Your task to perform on an android device: Is it going to rain tomorrow? Image 0: 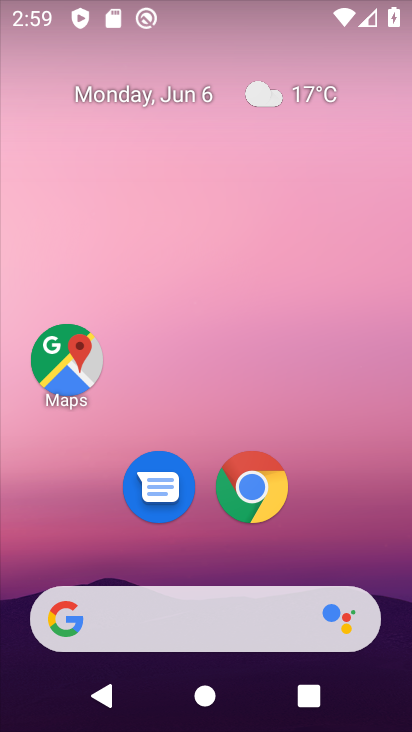
Step 0: click (290, 98)
Your task to perform on an android device: Is it going to rain tomorrow? Image 1: 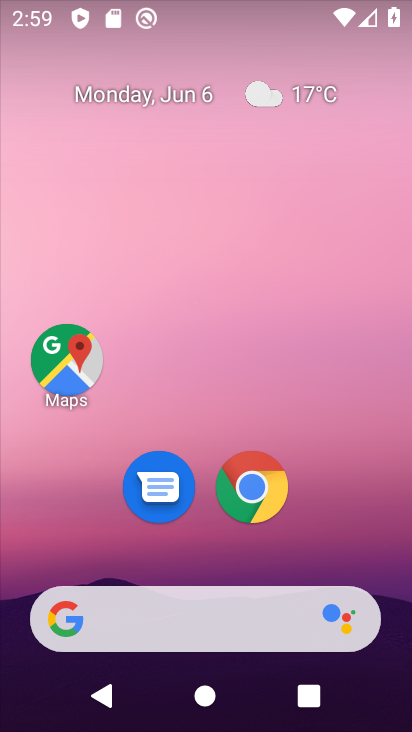
Step 1: click (283, 100)
Your task to perform on an android device: Is it going to rain tomorrow? Image 2: 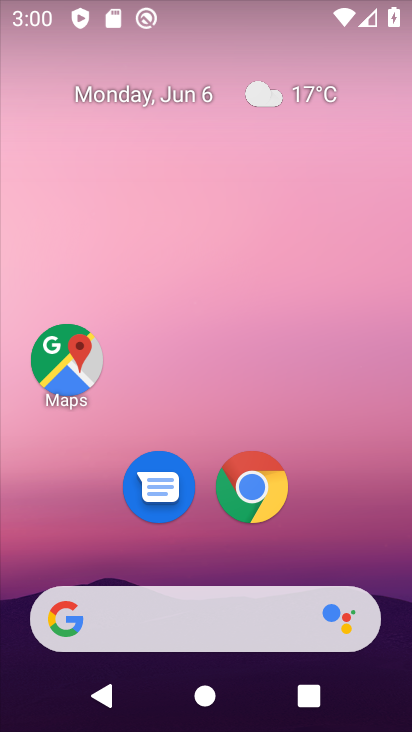
Step 2: click (334, 89)
Your task to perform on an android device: Is it going to rain tomorrow? Image 3: 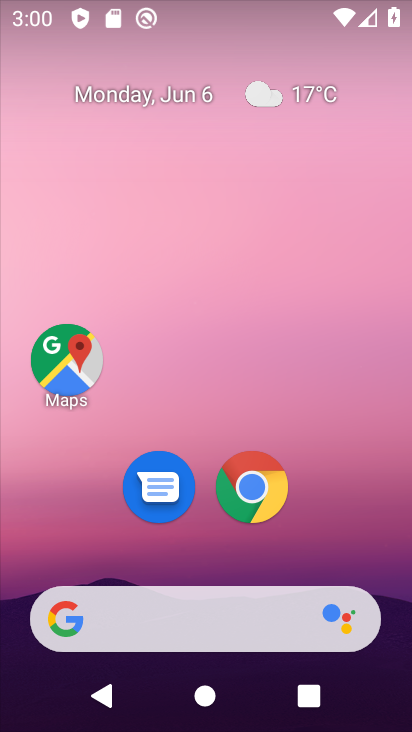
Step 3: click (305, 111)
Your task to perform on an android device: Is it going to rain tomorrow? Image 4: 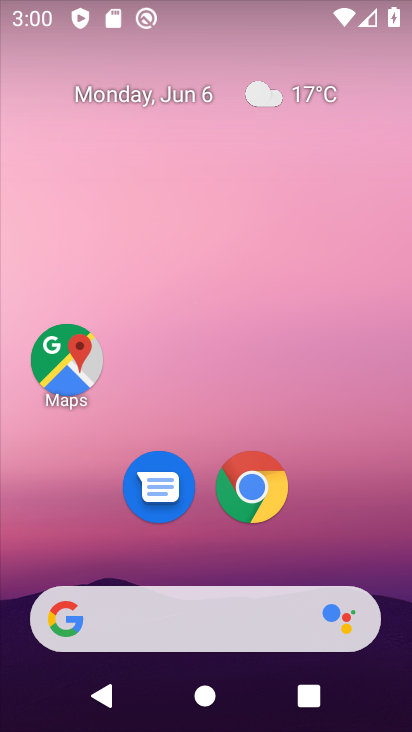
Step 4: click (268, 106)
Your task to perform on an android device: Is it going to rain tomorrow? Image 5: 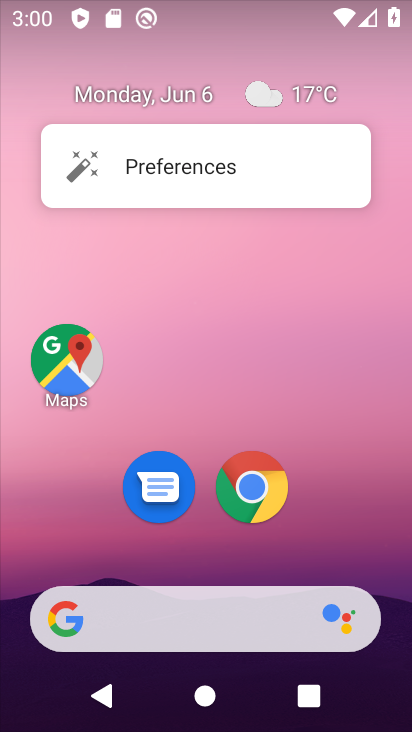
Step 5: click (322, 96)
Your task to perform on an android device: Is it going to rain tomorrow? Image 6: 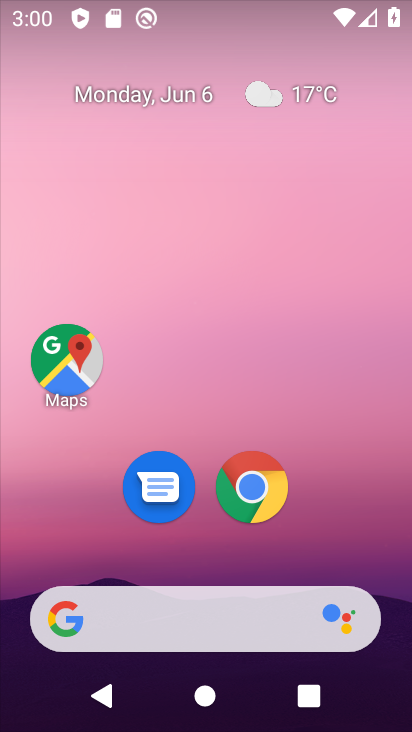
Step 6: click (301, 95)
Your task to perform on an android device: Is it going to rain tomorrow? Image 7: 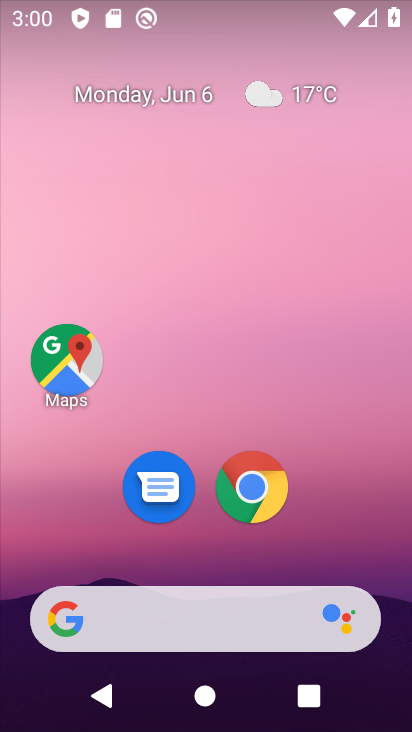
Step 7: click (291, 105)
Your task to perform on an android device: Is it going to rain tomorrow? Image 8: 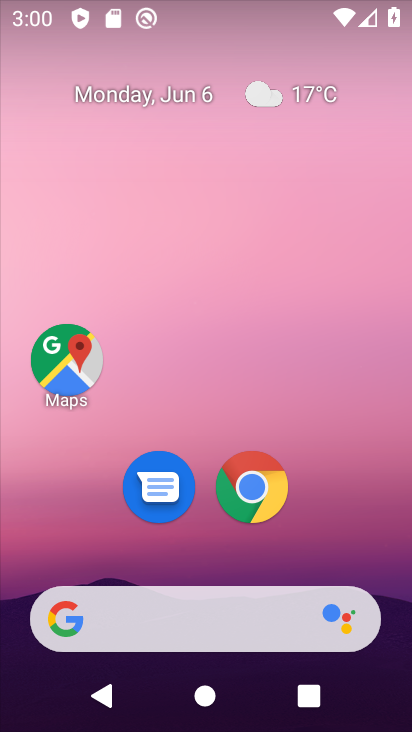
Step 8: click (285, 106)
Your task to perform on an android device: Is it going to rain tomorrow? Image 9: 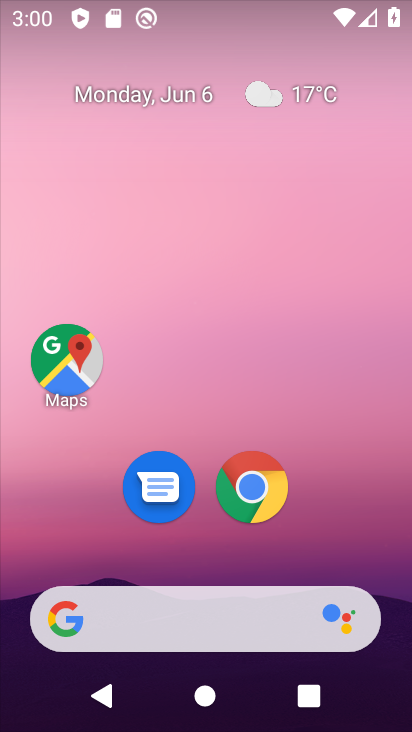
Step 9: click (284, 106)
Your task to perform on an android device: Is it going to rain tomorrow? Image 10: 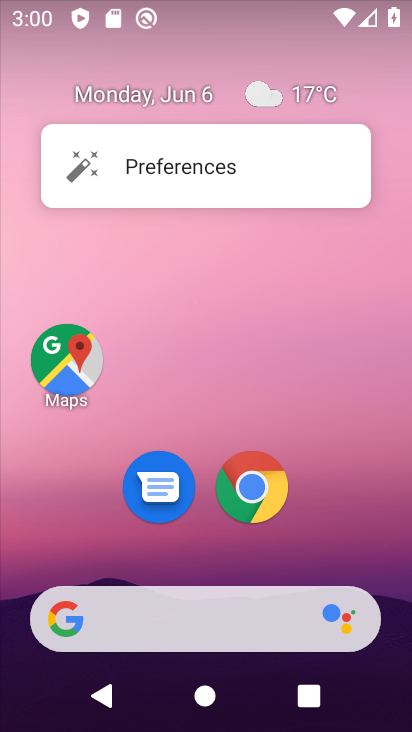
Step 10: click (323, 94)
Your task to perform on an android device: Is it going to rain tomorrow? Image 11: 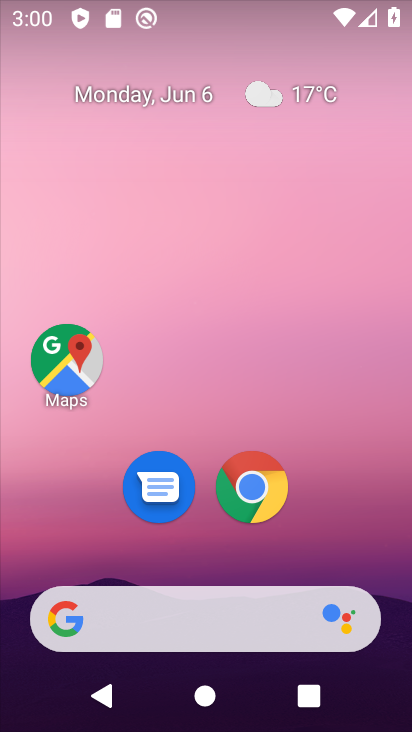
Step 11: click (294, 95)
Your task to perform on an android device: Is it going to rain tomorrow? Image 12: 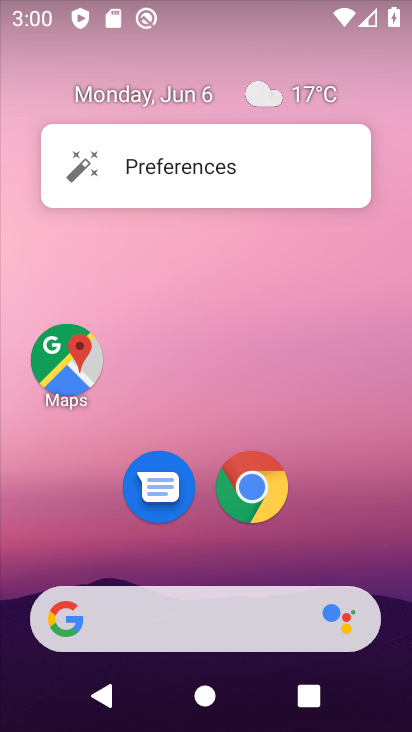
Step 12: click (290, 113)
Your task to perform on an android device: Is it going to rain tomorrow? Image 13: 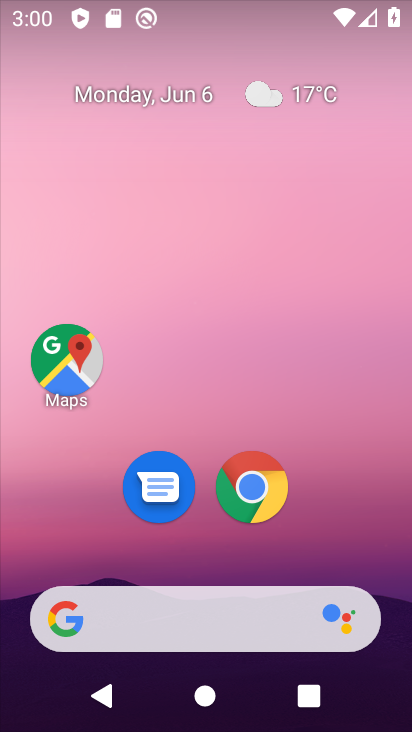
Step 13: click (290, 98)
Your task to perform on an android device: Is it going to rain tomorrow? Image 14: 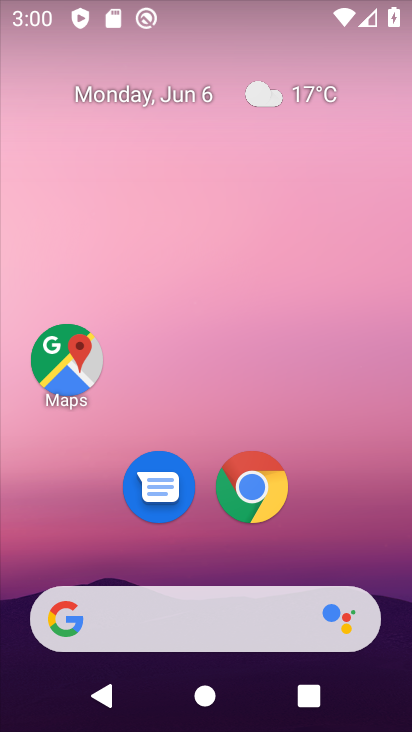
Step 14: click (289, 96)
Your task to perform on an android device: Is it going to rain tomorrow? Image 15: 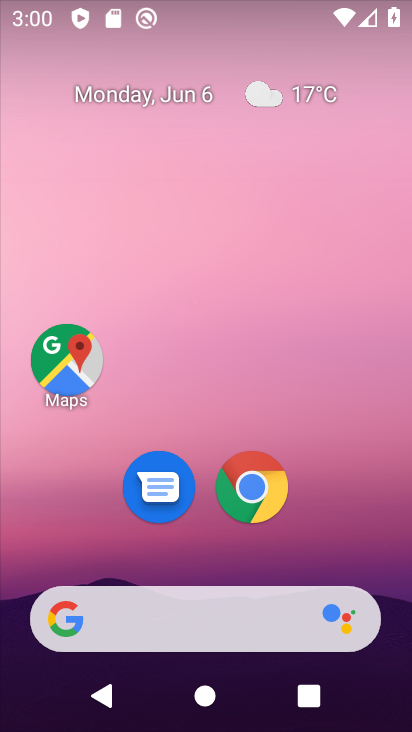
Step 15: click (275, 99)
Your task to perform on an android device: Is it going to rain tomorrow? Image 16: 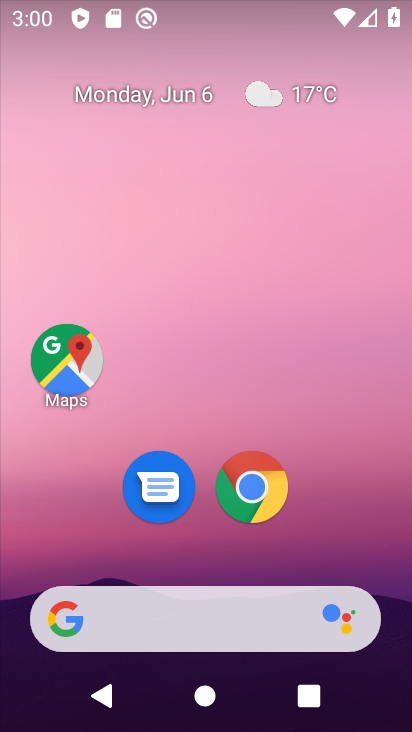
Step 16: click (308, 95)
Your task to perform on an android device: Is it going to rain tomorrow? Image 17: 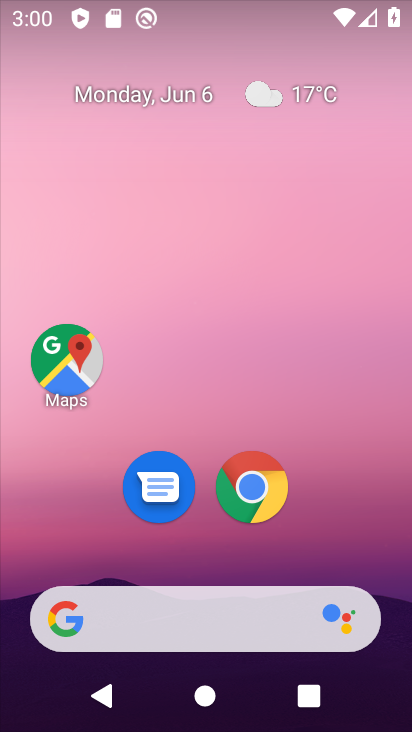
Step 17: click (307, 95)
Your task to perform on an android device: Is it going to rain tomorrow? Image 18: 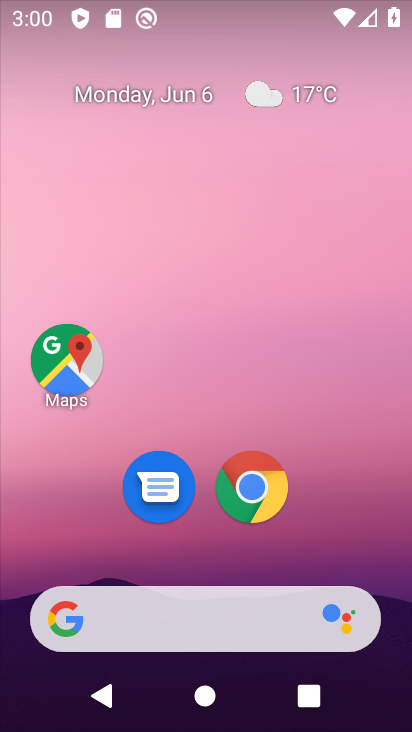
Step 18: click (287, 91)
Your task to perform on an android device: Is it going to rain tomorrow? Image 19: 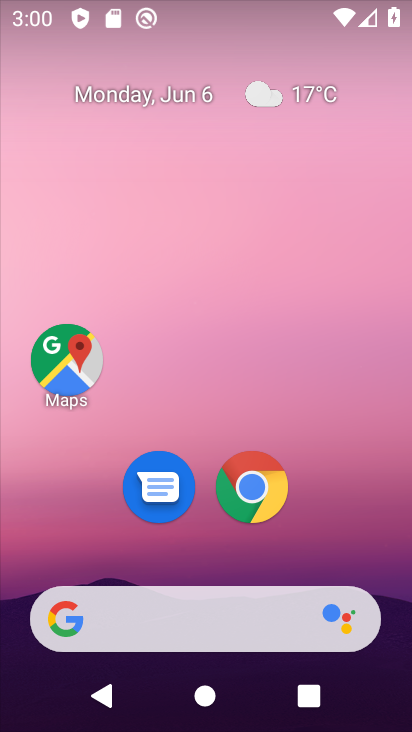
Step 19: drag from (23, 247) to (405, 276)
Your task to perform on an android device: Is it going to rain tomorrow? Image 20: 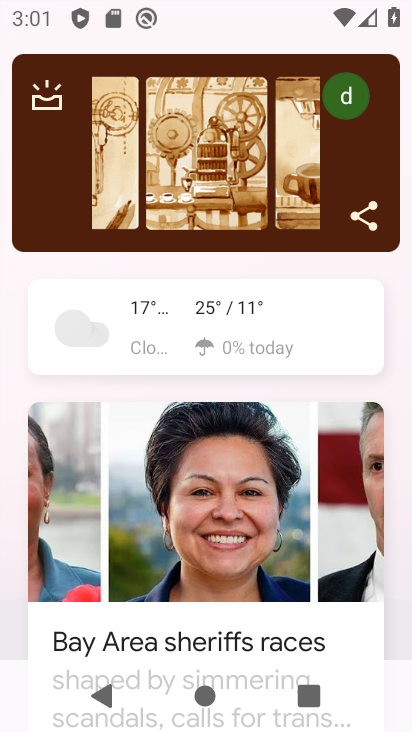
Step 20: click (309, 350)
Your task to perform on an android device: Is it going to rain tomorrow? Image 21: 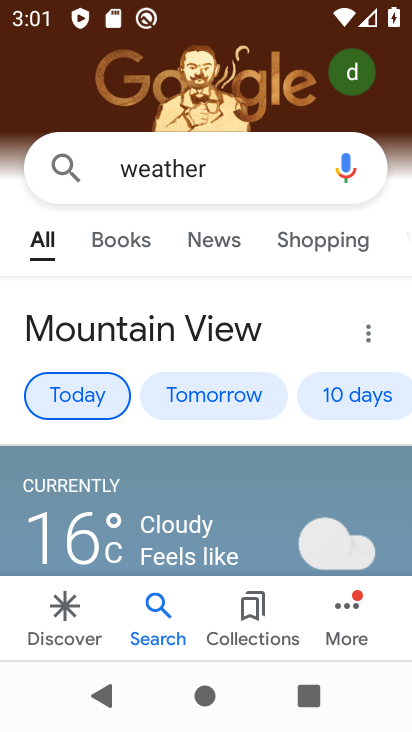
Step 21: click (228, 406)
Your task to perform on an android device: Is it going to rain tomorrow? Image 22: 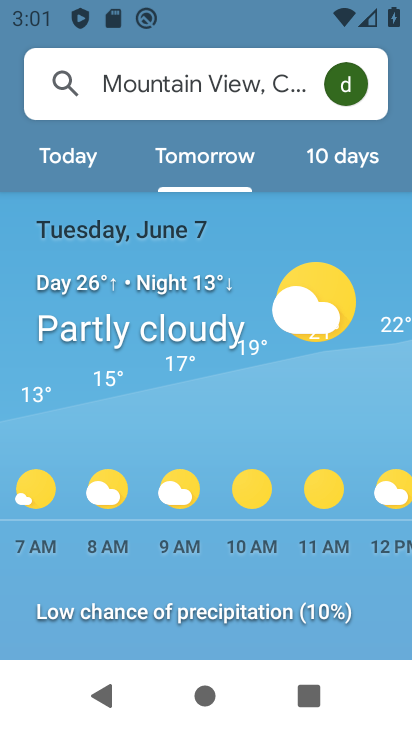
Step 22: task complete